Your task to perform on an android device: visit the assistant section in the google photos Image 0: 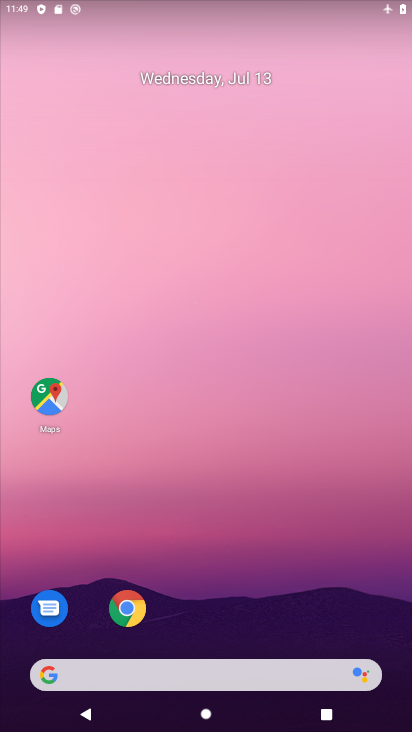
Step 0: drag from (16, 363) to (91, 140)
Your task to perform on an android device: visit the assistant section in the google photos Image 1: 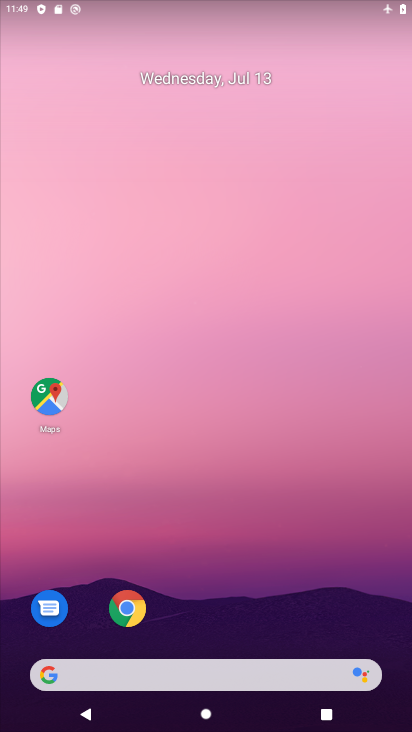
Step 1: drag from (28, 586) to (168, 101)
Your task to perform on an android device: visit the assistant section in the google photos Image 2: 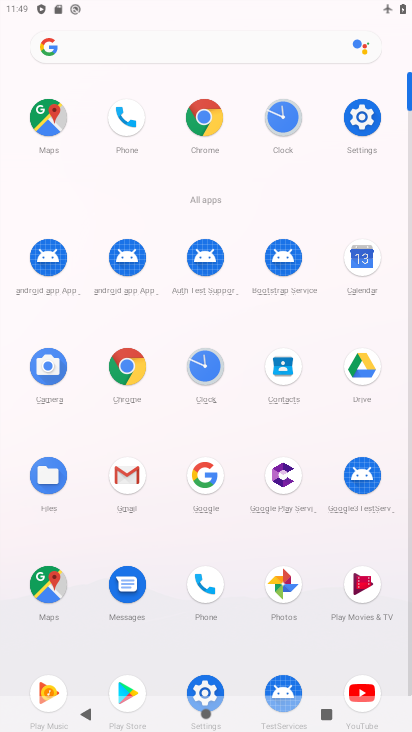
Step 2: click (285, 577)
Your task to perform on an android device: visit the assistant section in the google photos Image 3: 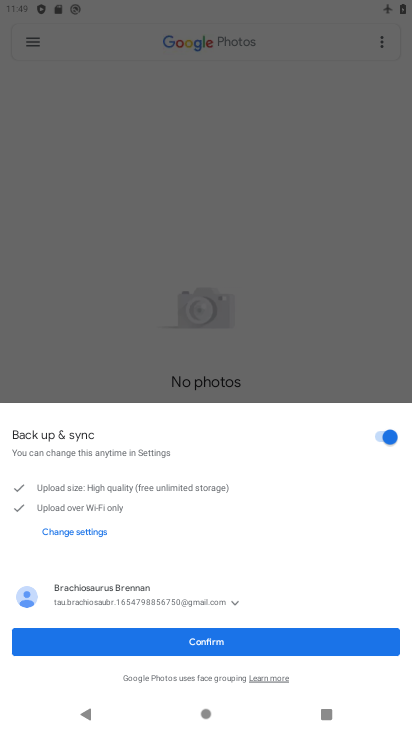
Step 3: click (220, 648)
Your task to perform on an android device: visit the assistant section in the google photos Image 4: 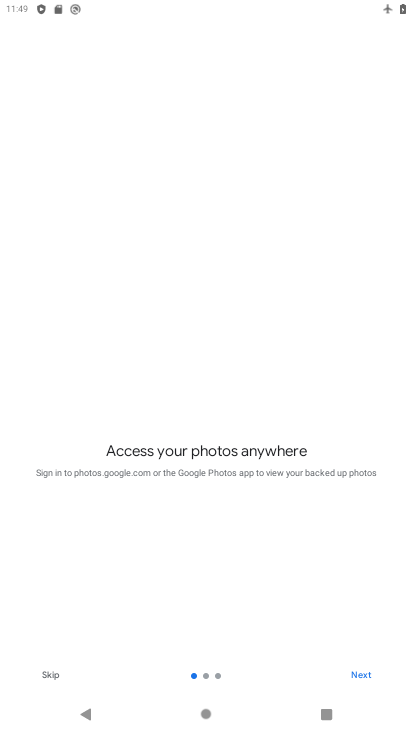
Step 4: click (358, 680)
Your task to perform on an android device: visit the assistant section in the google photos Image 5: 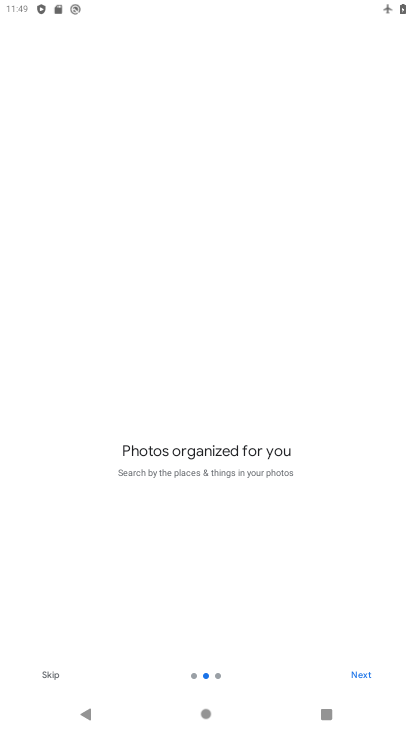
Step 5: click (360, 680)
Your task to perform on an android device: visit the assistant section in the google photos Image 6: 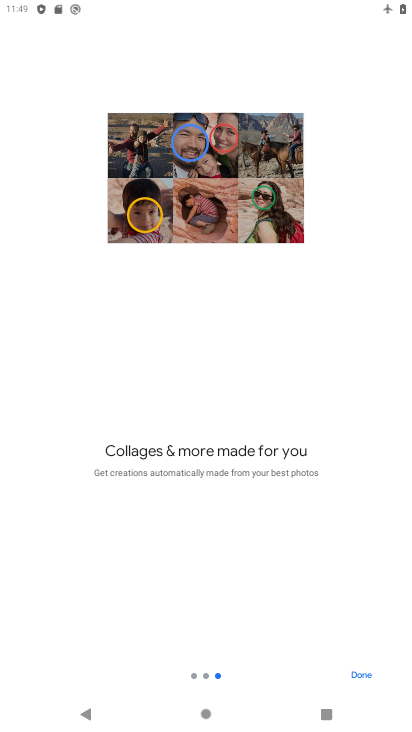
Step 6: click (360, 679)
Your task to perform on an android device: visit the assistant section in the google photos Image 7: 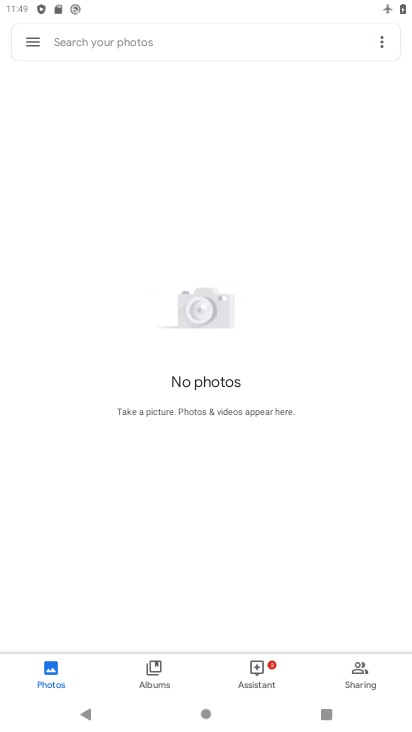
Step 7: click (33, 42)
Your task to perform on an android device: visit the assistant section in the google photos Image 8: 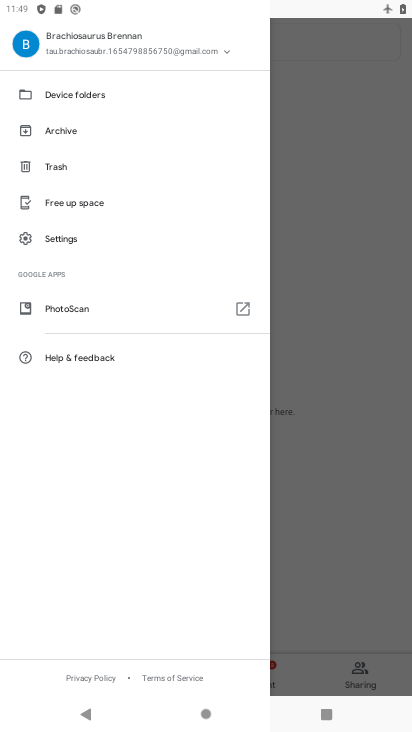
Step 8: click (318, 371)
Your task to perform on an android device: visit the assistant section in the google photos Image 9: 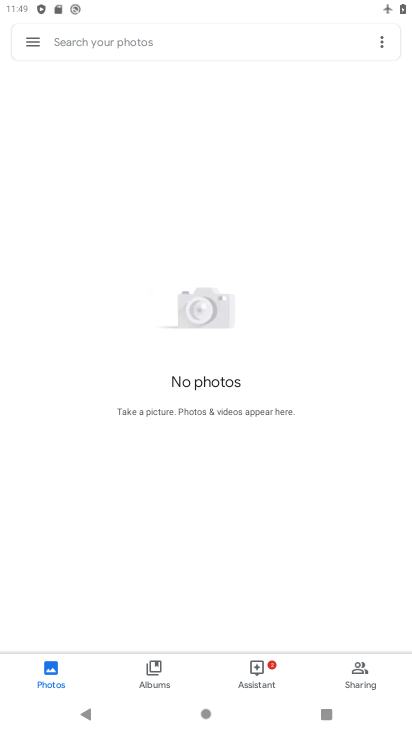
Step 9: click (259, 671)
Your task to perform on an android device: visit the assistant section in the google photos Image 10: 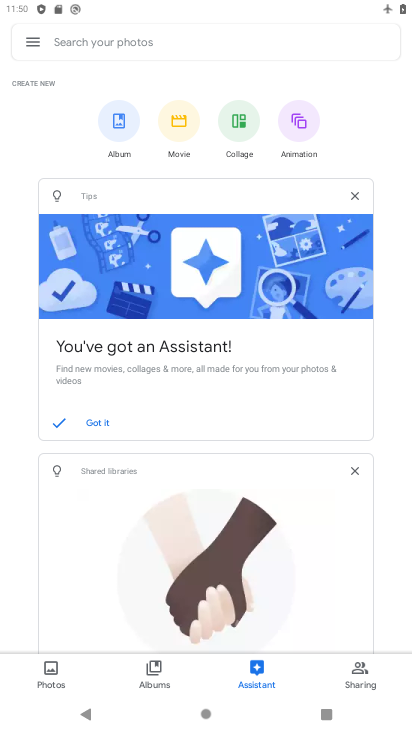
Step 10: task complete